Your task to perform on an android device: add a contact in the contacts app Image 0: 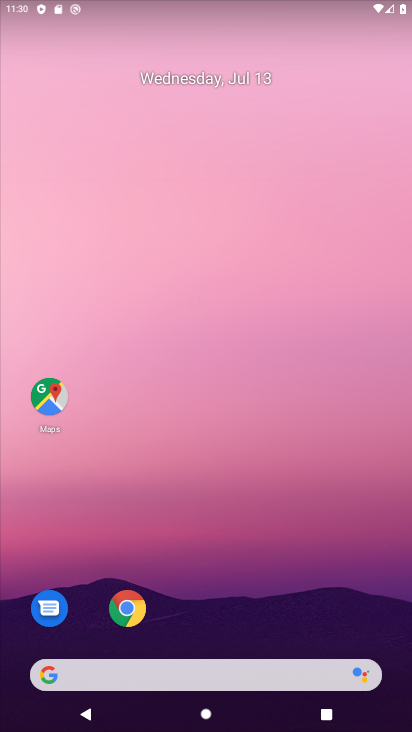
Step 0: drag from (85, 360) to (145, 106)
Your task to perform on an android device: add a contact in the contacts app Image 1: 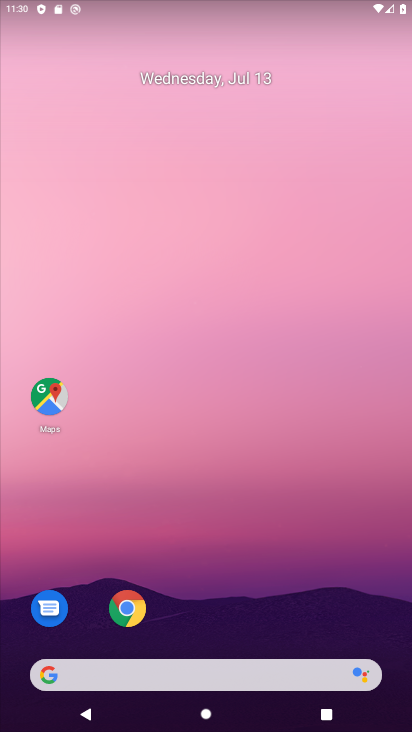
Step 1: drag from (10, 595) to (187, 95)
Your task to perform on an android device: add a contact in the contacts app Image 2: 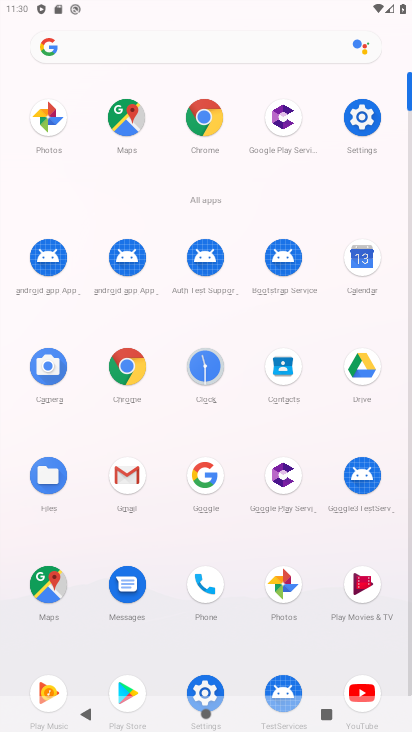
Step 2: click (202, 584)
Your task to perform on an android device: add a contact in the contacts app Image 3: 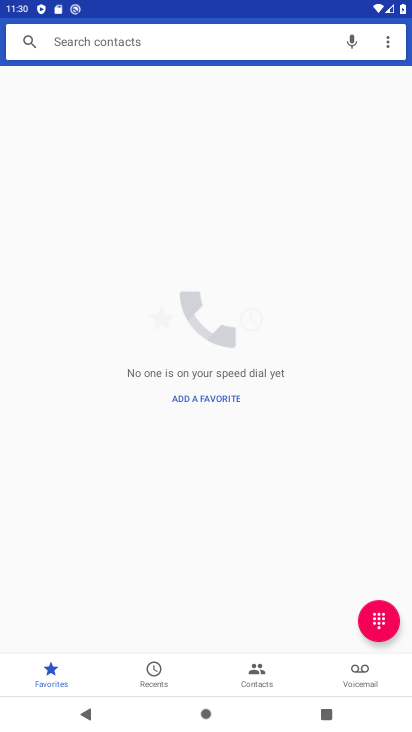
Step 3: click (244, 672)
Your task to perform on an android device: add a contact in the contacts app Image 4: 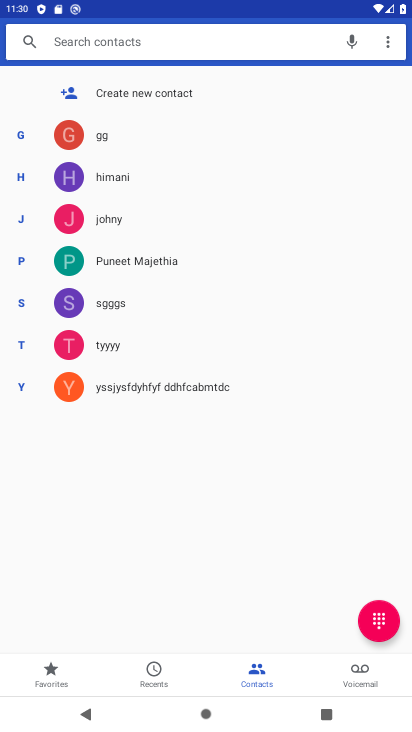
Step 4: click (169, 87)
Your task to perform on an android device: add a contact in the contacts app Image 5: 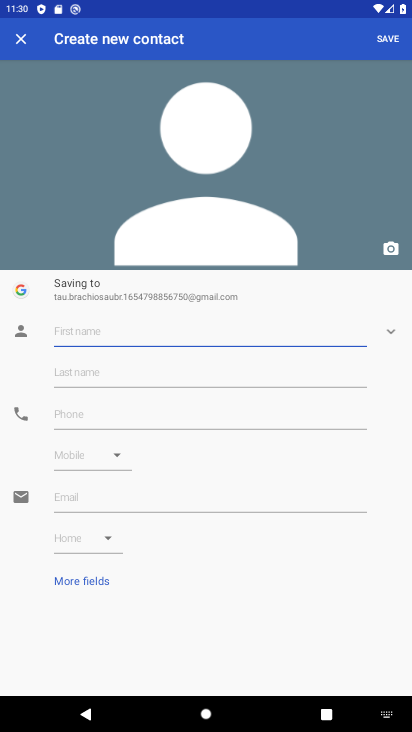
Step 5: click (152, 328)
Your task to perform on an android device: add a contact in the contacts app Image 6: 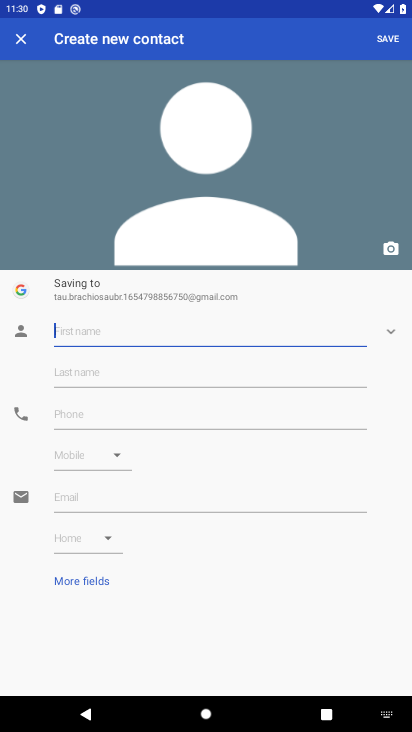
Step 6: type "zcvvdv"
Your task to perform on an android device: add a contact in the contacts app Image 7: 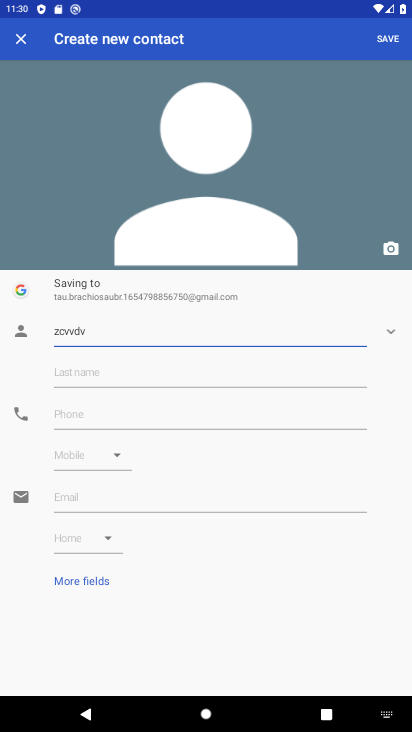
Step 7: click (397, 40)
Your task to perform on an android device: add a contact in the contacts app Image 8: 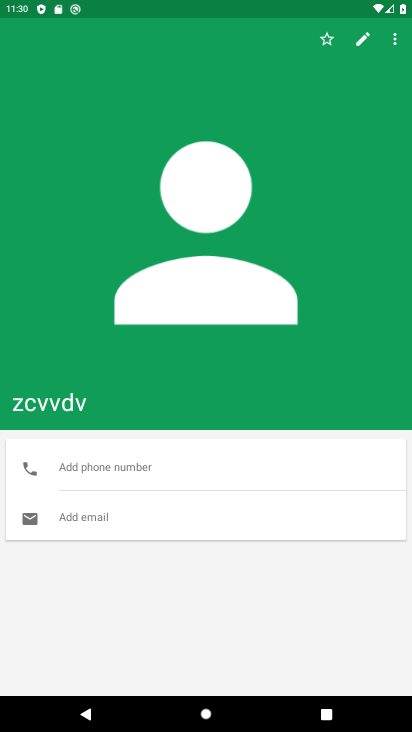
Step 8: task complete